Your task to perform on an android device: When is my next meeting? Image 0: 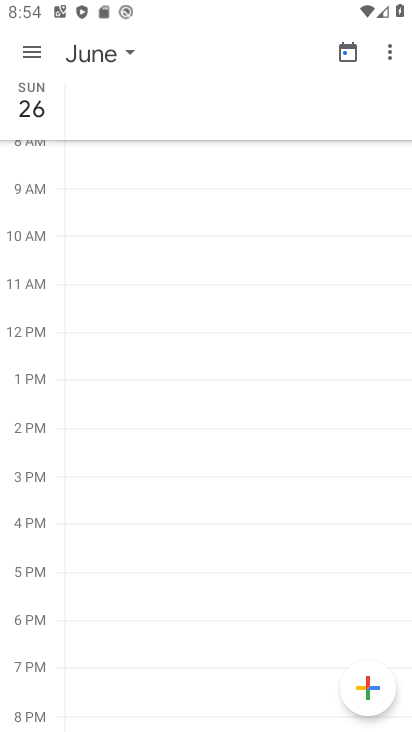
Step 0: press home button
Your task to perform on an android device: When is my next meeting? Image 1: 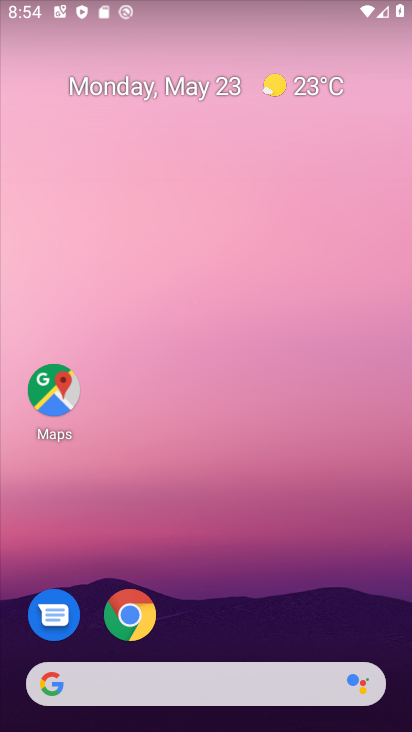
Step 1: drag from (249, 587) to (198, 62)
Your task to perform on an android device: When is my next meeting? Image 2: 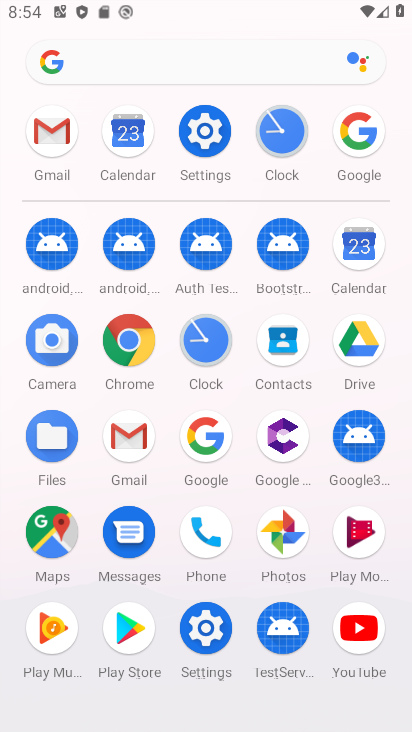
Step 2: click (129, 135)
Your task to perform on an android device: When is my next meeting? Image 3: 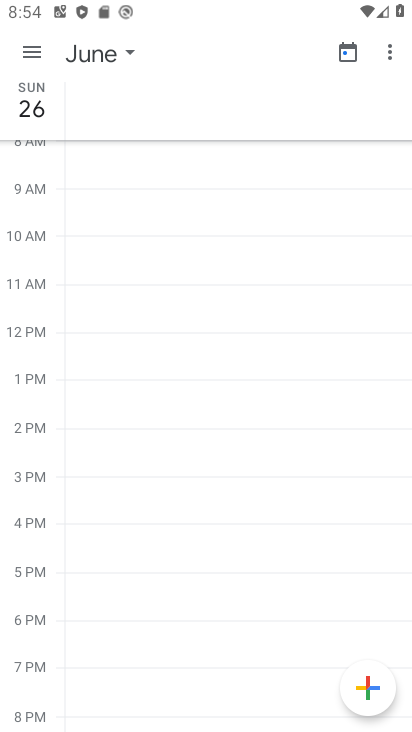
Step 3: click (347, 53)
Your task to perform on an android device: When is my next meeting? Image 4: 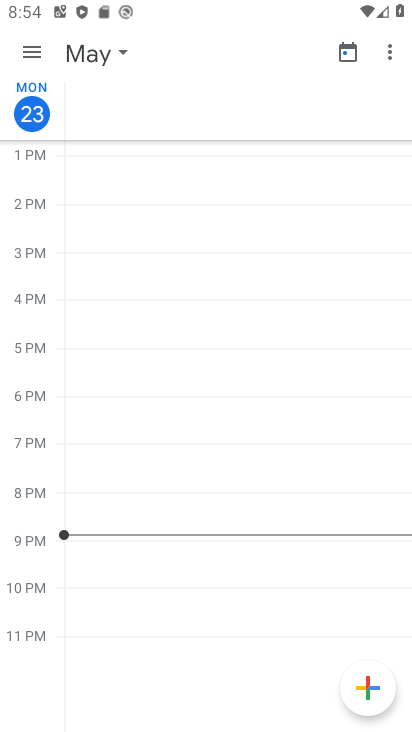
Step 4: click (124, 52)
Your task to perform on an android device: When is my next meeting? Image 5: 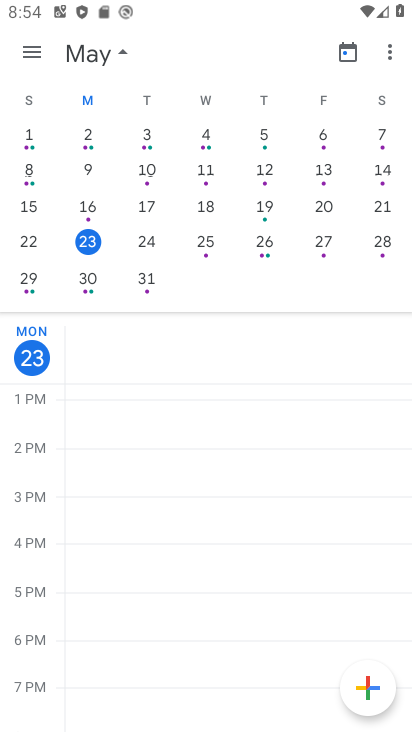
Step 5: click (210, 243)
Your task to perform on an android device: When is my next meeting? Image 6: 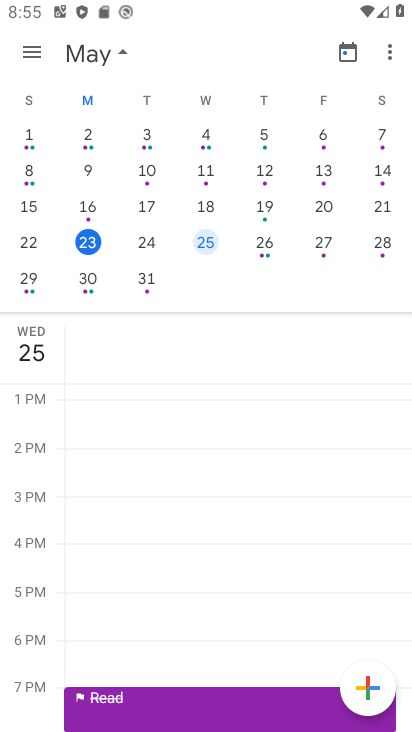
Step 6: click (36, 52)
Your task to perform on an android device: When is my next meeting? Image 7: 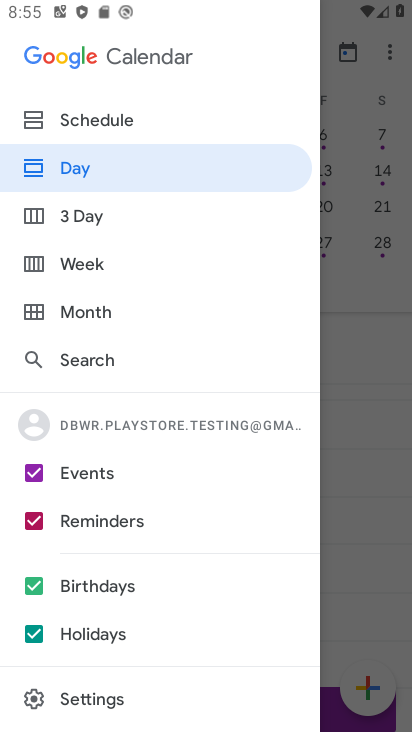
Step 7: click (90, 268)
Your task to perform on an android device: When is my next meeting? Image 8: 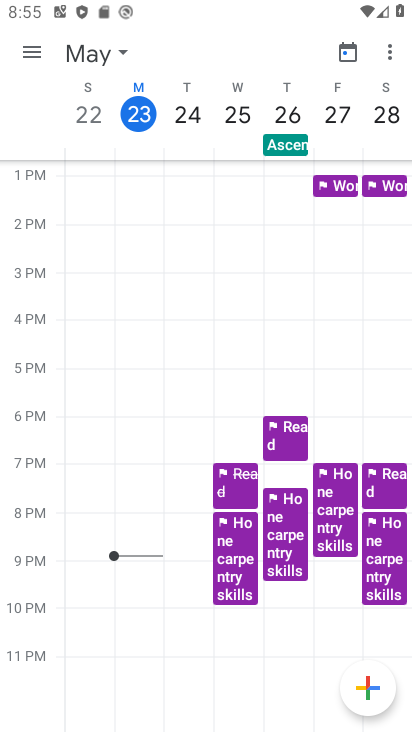
Step 8: task complete